Your task to perform on an android device: What is the recent news? Image 0: 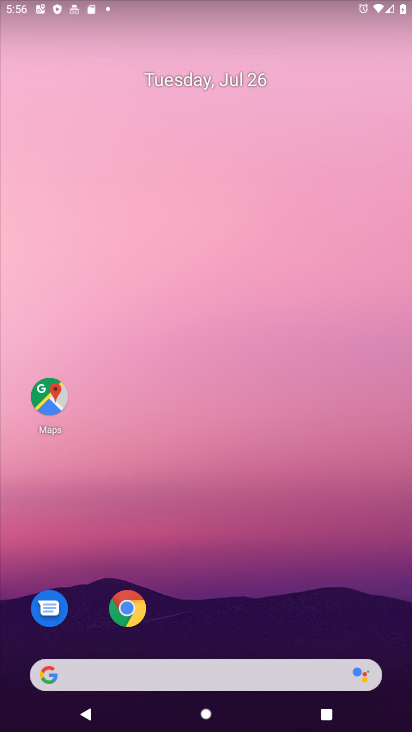
Step 0: press home button
Your task to perform on an android device: What is the recent news? Image 1: 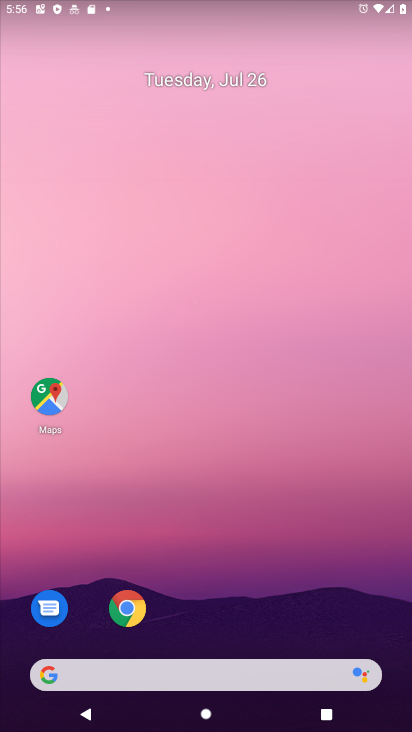
Step 1: click (50, 682)
Your task to perform on an android device: What is the recent news? Image 2: 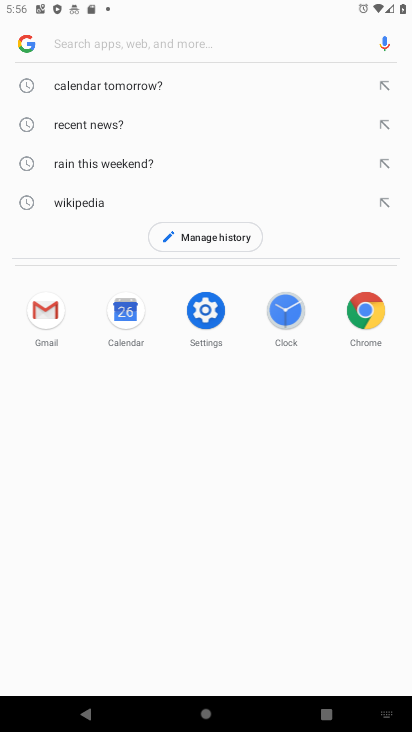
Step 2: click (80, 125)
Your task to perform on an android device: What is the recent news? Image 3: 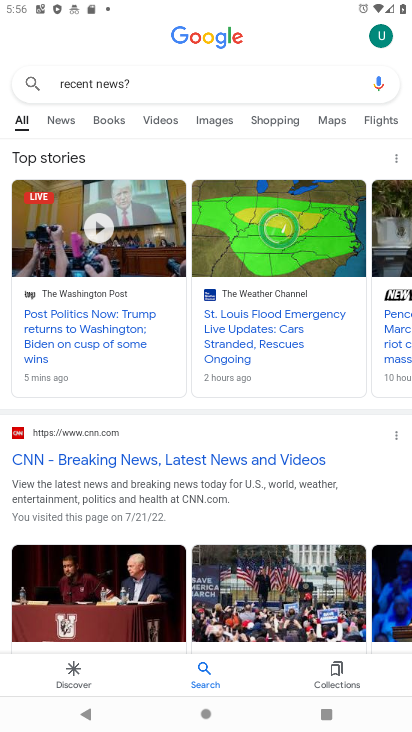
Step 3: task complete